Your task to perform on an android device: Open the Play Movies app and select the watchlist tab. Image 0: 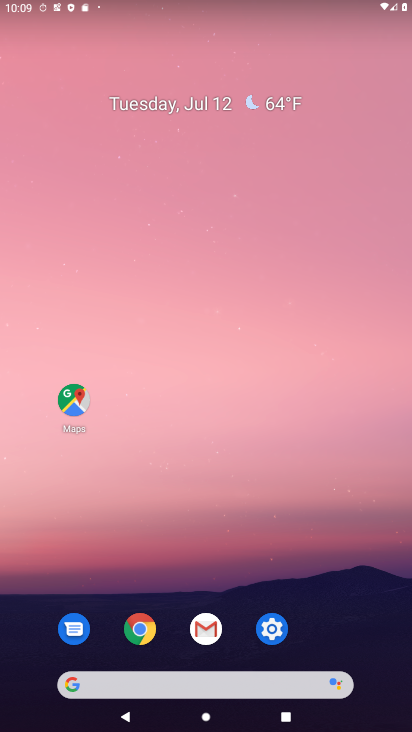
Step 0: drag from (270, 681) to (163, 89)
Your task to perform on an android device: Open the Play Movies app and select the watchlist tab. Image 1: 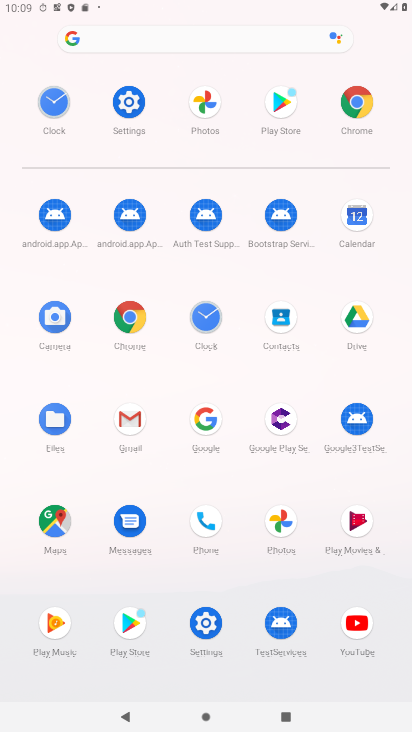
Step 1: click (355, 523)
Your task to perform on an android device: Open the Play Movies app and select the watchlist tab. Image 2: 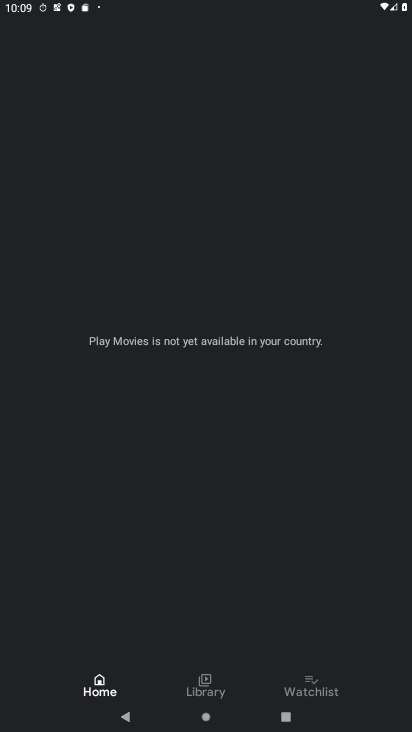
Step 2: click (310, 691)
Your task to perform on an android device: Open the Play Movies app and select the watchlist tab. Image 3: 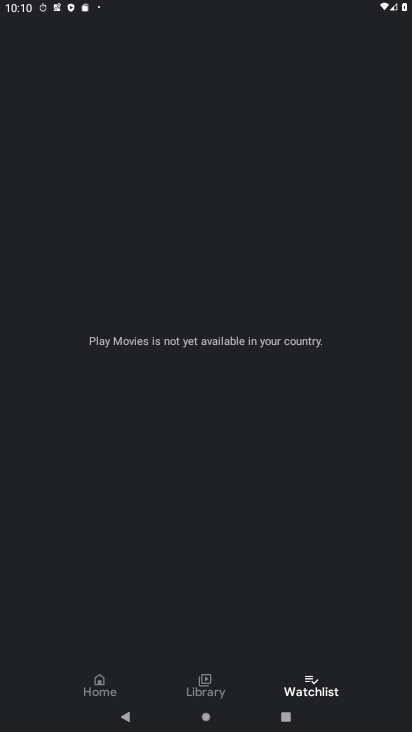
Step 3: task complete